Your task to perform on an android device: change timer sound Image 0: 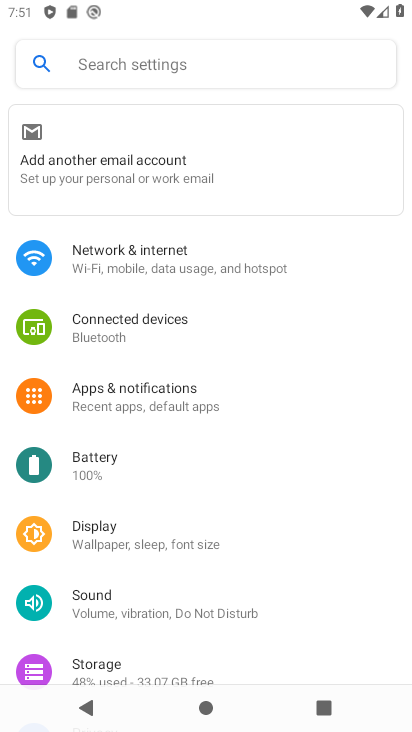
Step 0: press home button
Your task to perform on an android device: change timer sound Image 1: 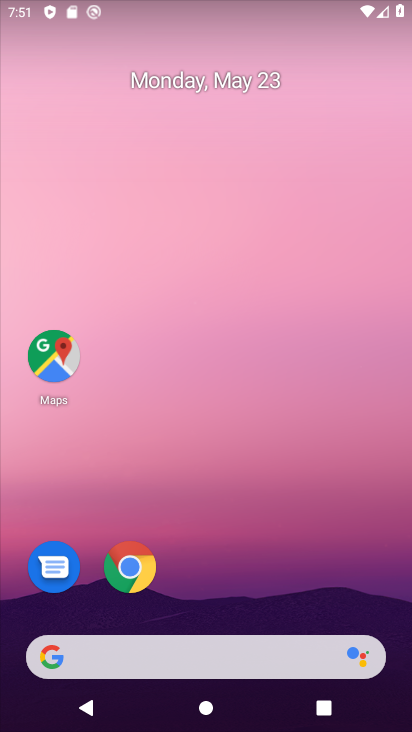
Step 1: drag from (227, 614) to (254, 98)
Your task to perform on an android device: change timer sound Image 2: 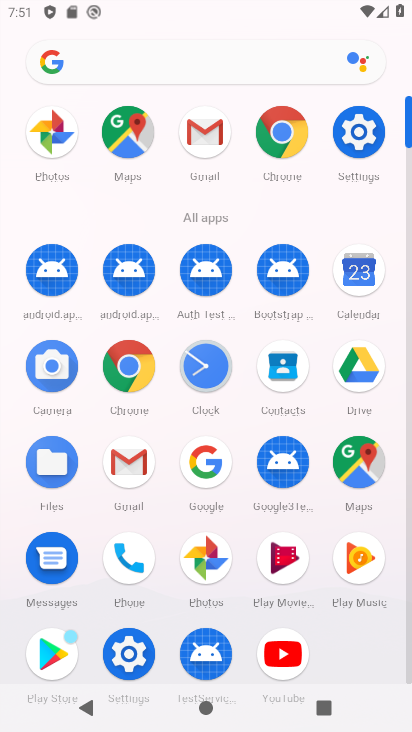
Step 2: click (206, 378)
Your task to perform on an android device: change timer sound Image 3: 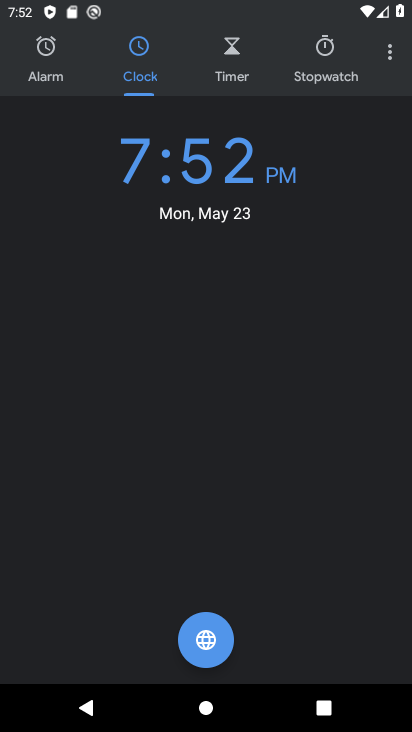
Step 3: click (382, 60)
Your task to perform on an android device: change timer sound Image 4: 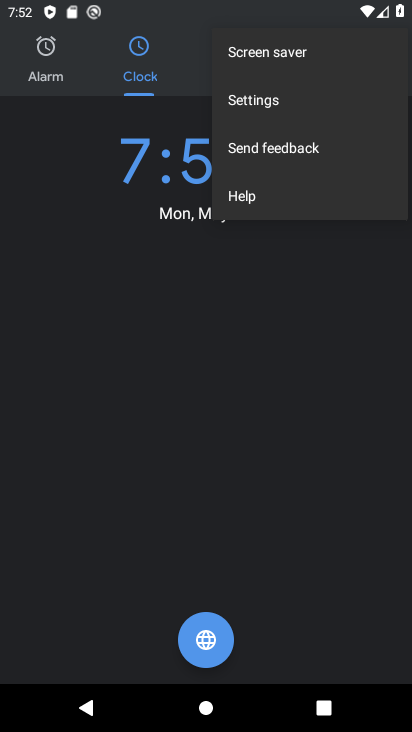
Step 4: click (293, 96)
Your task to perform on an android device: change timer sound Image 5: 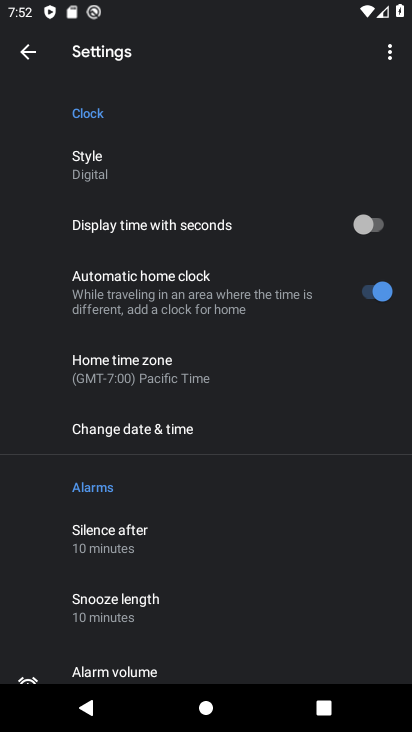
Step 5: drag from (172, 566) to (191, 213)
Your task to perform on an android device: change timer sound Image 6: 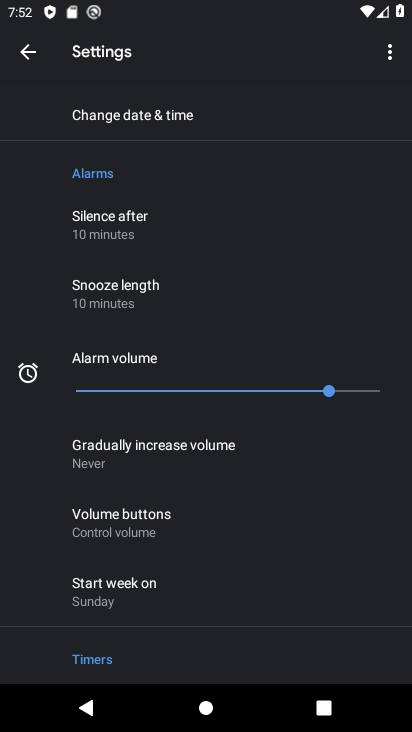
Step 6: drag from (152, 542) to (183, 245)
Your task to perform on an android device: change timer sound Image 7: 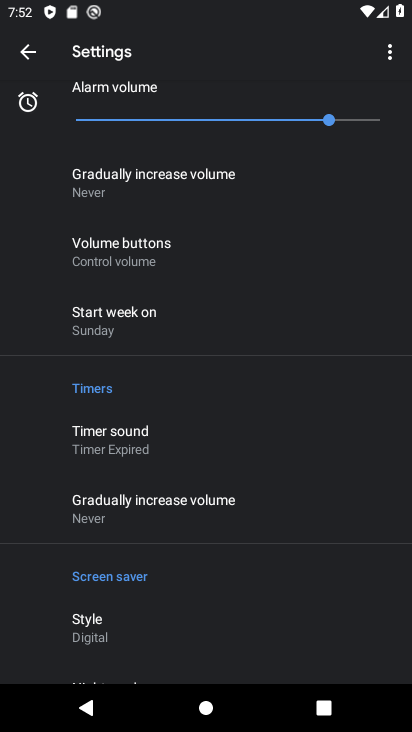
Step 7: click (156, 452)
Your task to perform on an android device: change timer sound Image 8: 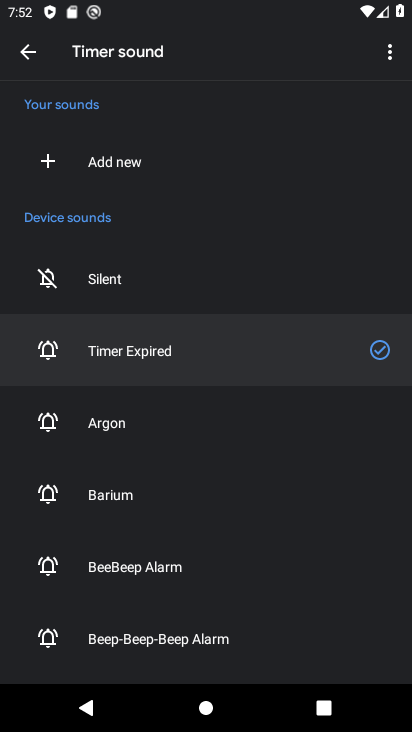
Step 8: click (116, 499)
Your task to perform on an android device: change timer sound Image 9: 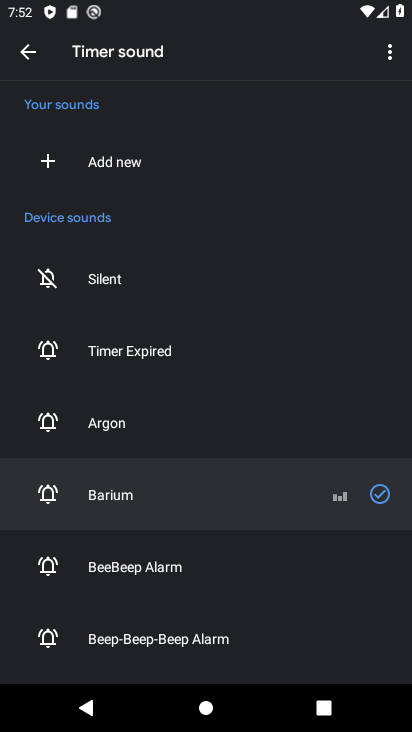
Step 9: task complete